Your task to perform on an android device: Open Google Image 0: 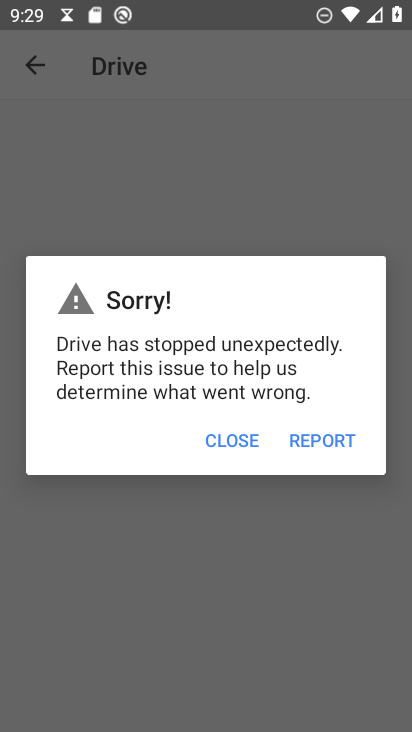
Step 0: press home button
Your task to perform on an android device: Open Google Image 1: 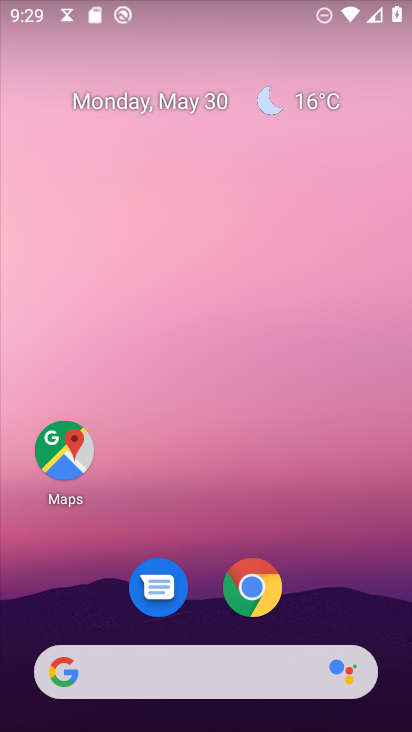
Step 1: click (68, 463)
Your task to perform on an android device: Open Google Image 2: 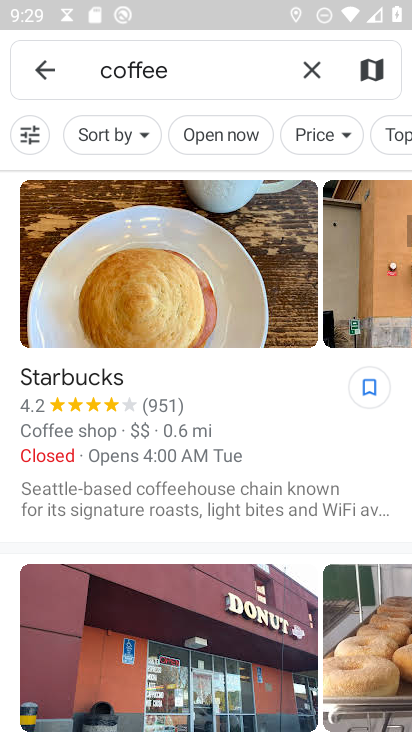
Step 2: click (44, 68)
Your task to perform on an android device: Open Google Image 3: 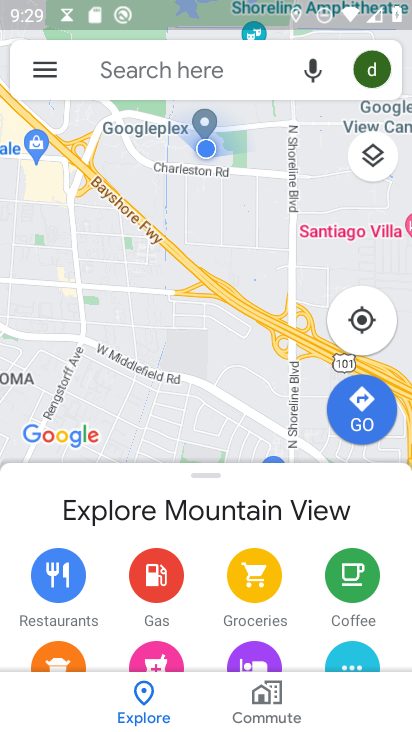
Step 3: task complete